Your task to perform on an android device: Go to Google Image 0: 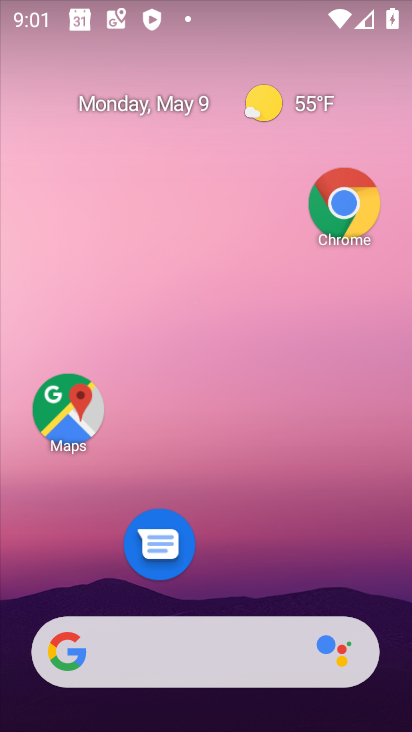
Step 0: drag from (240, 540) to (250, 155)
Your task to perform on an android device: Go to Google Image 1: 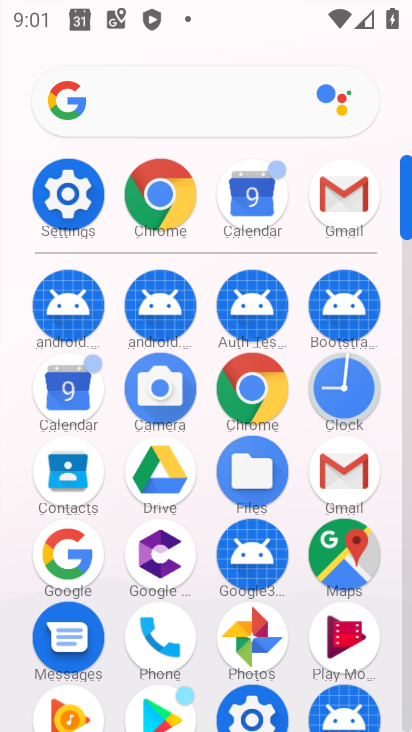
Step 1: click (73, 567)
Your task to perform on an android device: Go to Google Image 2: 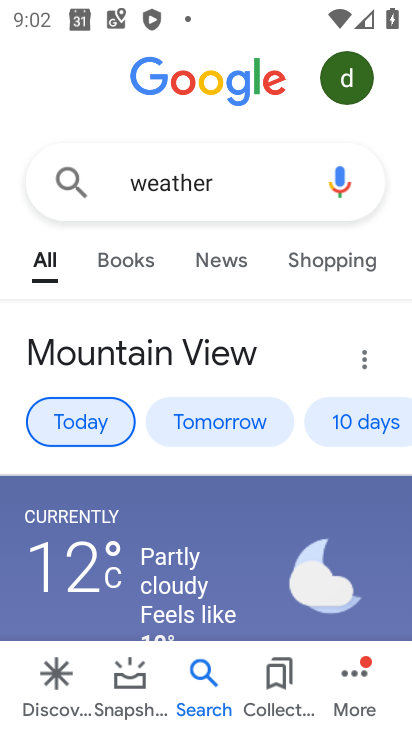
Step 2: task complete